Your task to perform on an android device: Open the calendar and show me this week's events Image 0: 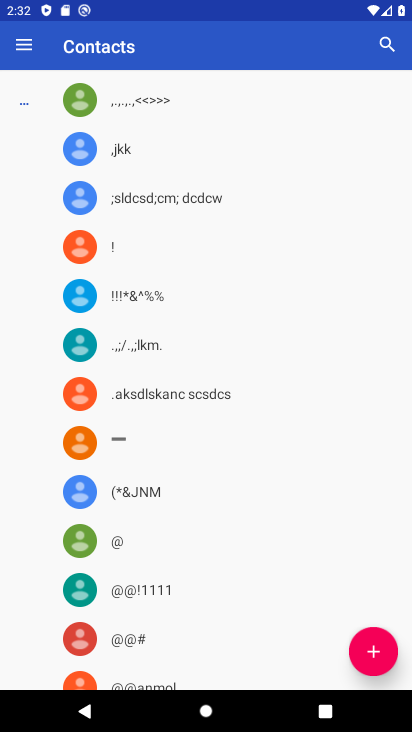
Step 0: press home button
Your task to perform on an android device: Open the calendar and show me this week's events Image 1: 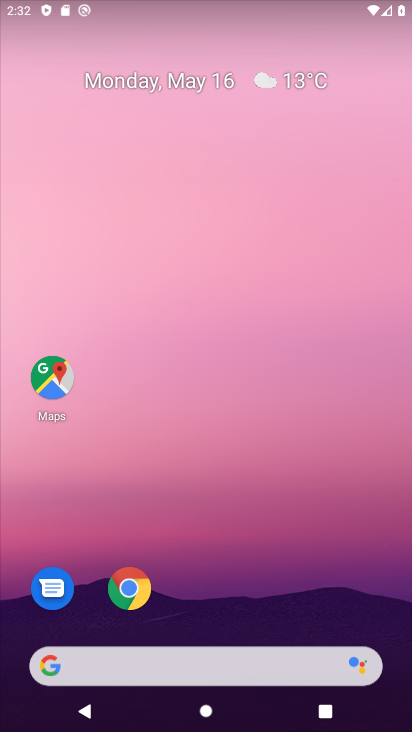
Step 1: click (164, 91)
Your task to perform on an android device: Open the calendar and show me this week's events Image 2: 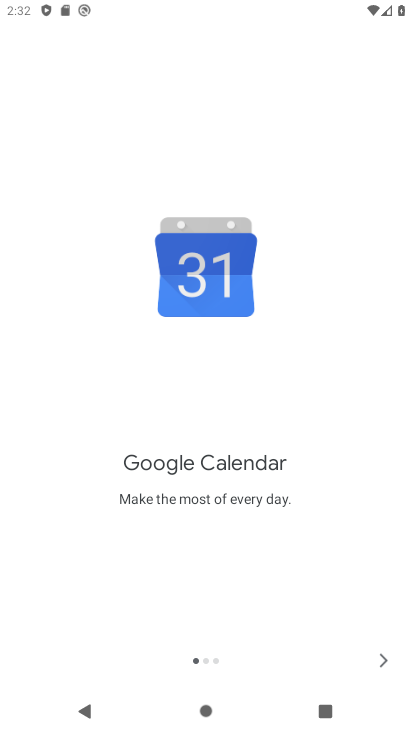
Step 2: click (405, 666)
Your task to perform on an android device: Open the calendar and show me this week's events Image 3: 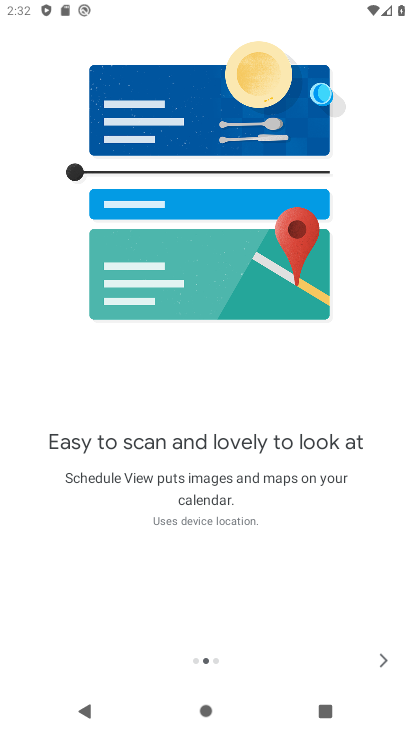
Step 3: click (396, 662)
Your task to perform on an android device: Open the calendar and show me this week's events Image 4: 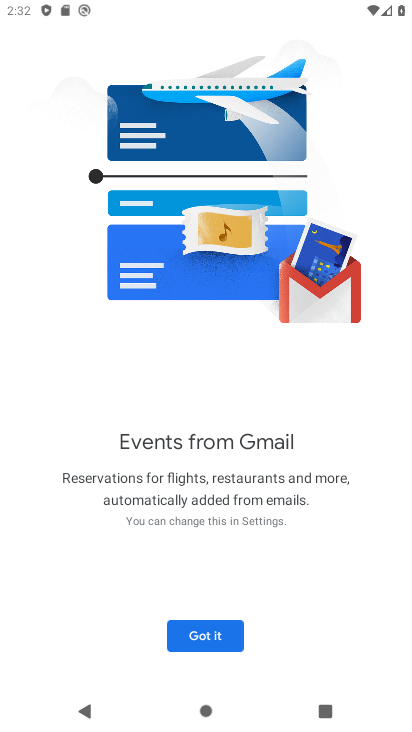
Step 4: click (216, 622)
Your task to perform on an android device: Open the calendar and show me this week's events Image 5: 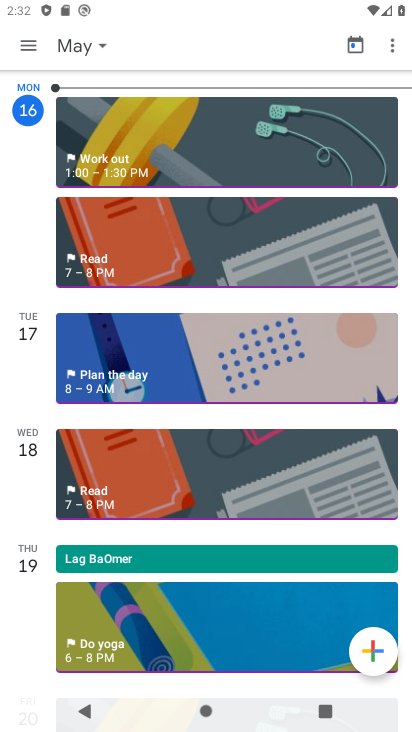
Step 5: click (84, 56)
Your task to perform on an android device: Open the calendar and show me this week's events Image 6: 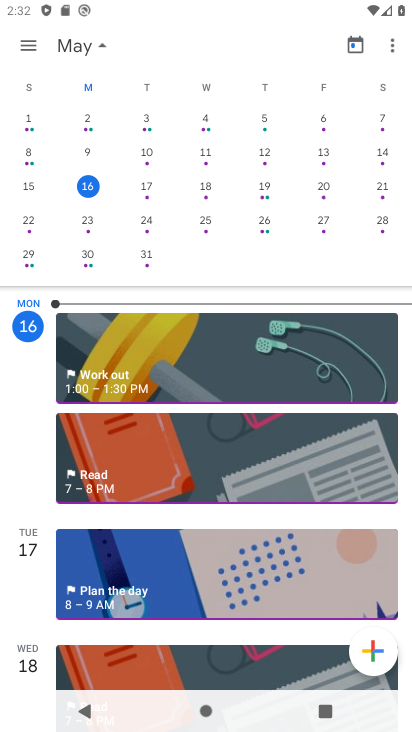
Step 6: click (327, 190)
Your task to perform on an android device: Open the calendar and show me this week's events Image 7: 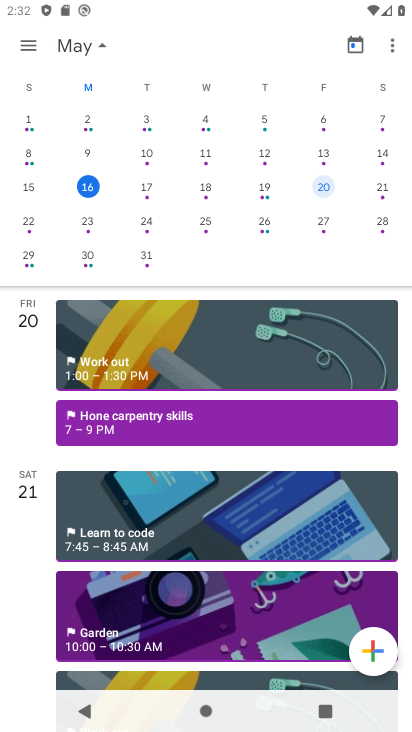
Step 7: task complete